Your task to perform on an android device: Open network settings Image 0: 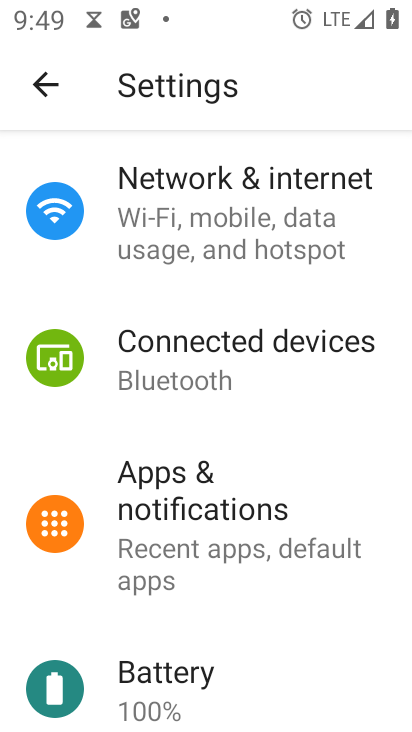
Step 0: press home button
Your task to perform on an android device: Open network settings Image 1: 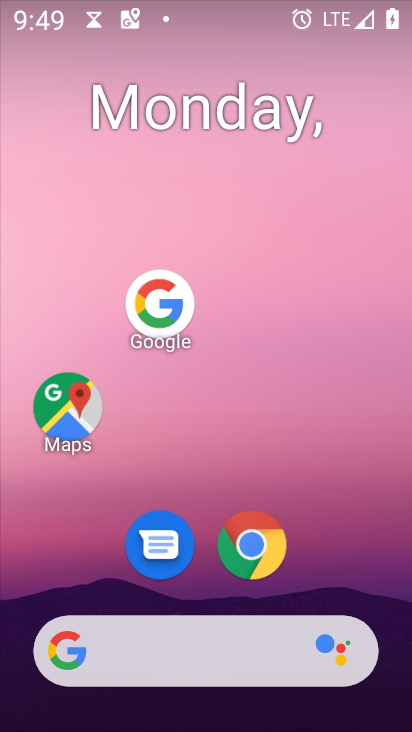
Step 1: drag from (168, 650) to (312, 183)
Your task to perform on an android device: Open network settings Image 2: 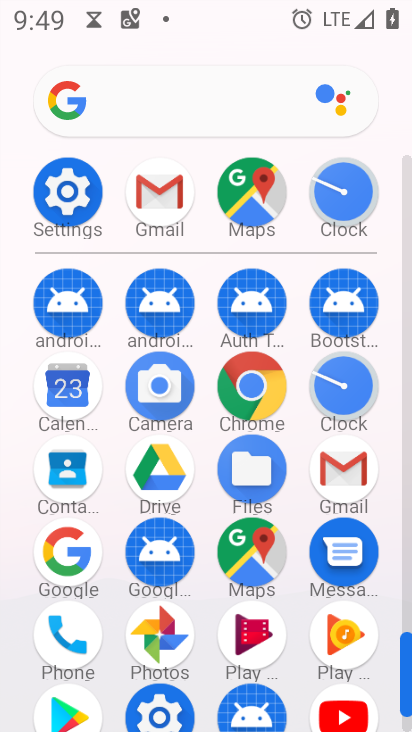
Step 2: click (77, 200)
Your task to perform on an android device: Open network settings Image 3: 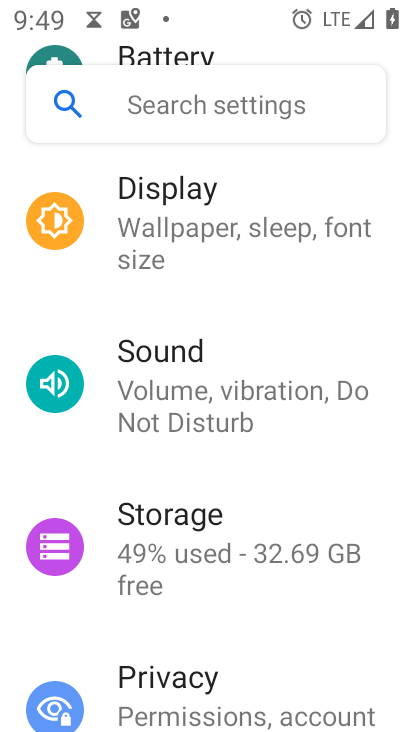
Step 3: drag from (304, 291) to (270, 576)
Your task to perform on an android device: Open network settings Image 4: 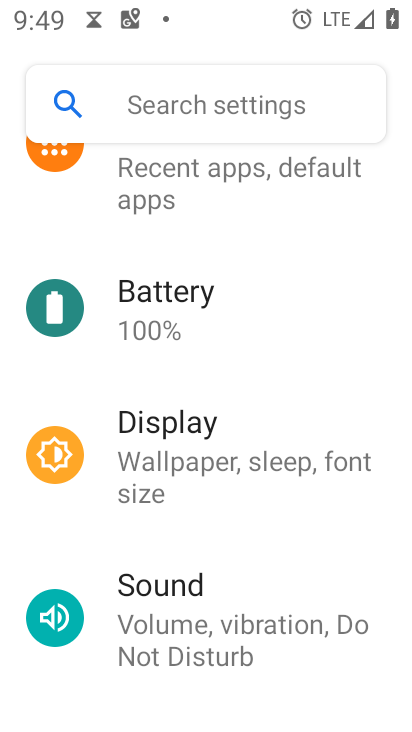
Step 4: drag from (281, 277) to (291, 576)
Your task to perform on an android device: Open network settings Image 5: 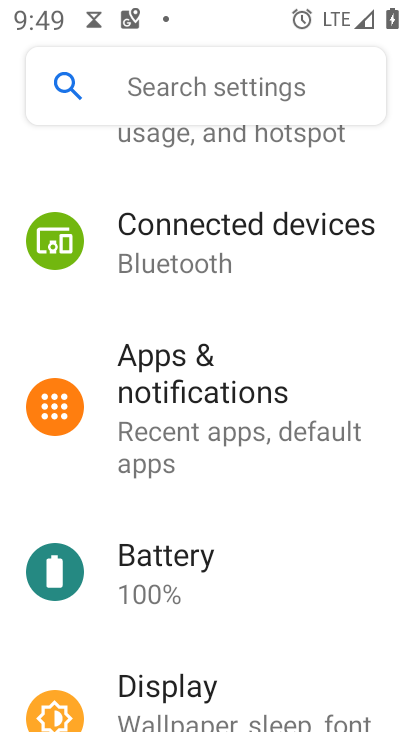
Step 5: drag from (291, 164) to (278, 543)
Your task to perform on an android device: Open network settings Image 6: 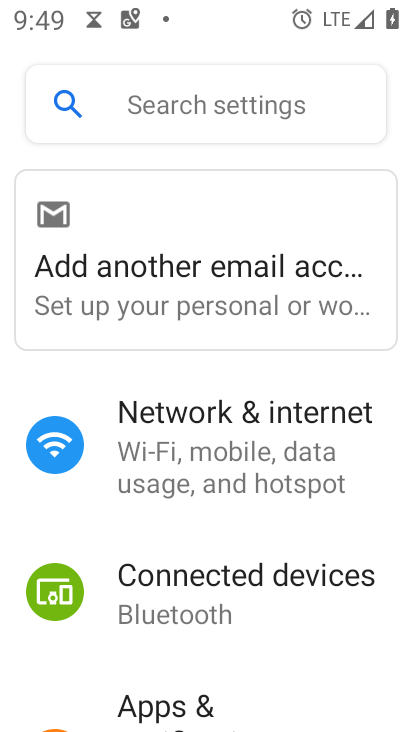
Step 6: click (244, 450)
Your task to perform on an android device: Open network settings Image 7: 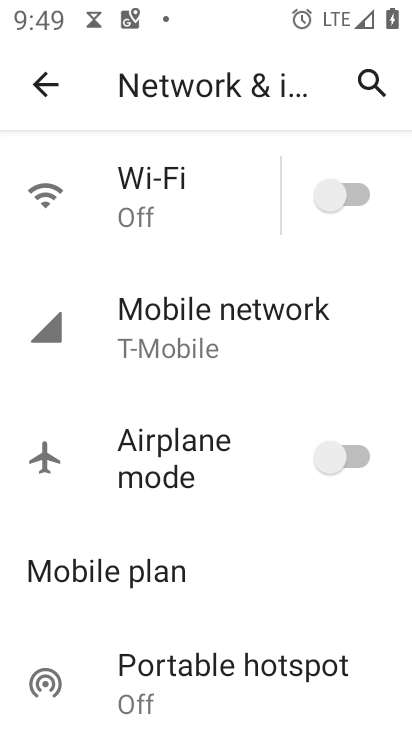
Step 7: task complete